Your task to perform on an android device: read, delete, or share a saved page in the chrome app Image 0: 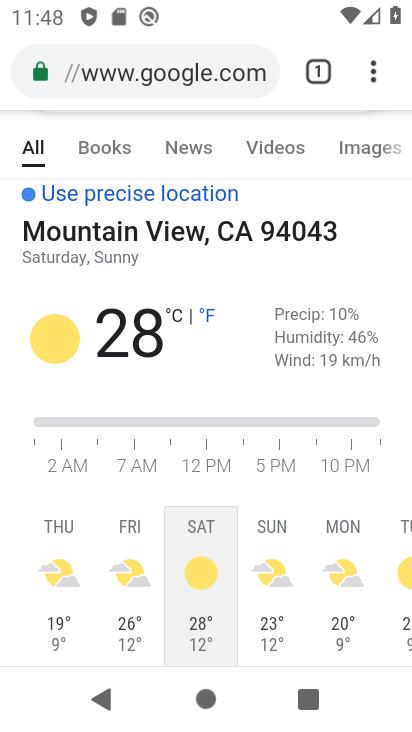
Step 0: press home button
Your task to perform on an android device: read, delete, or share a saved page in the chrome app Image 1: 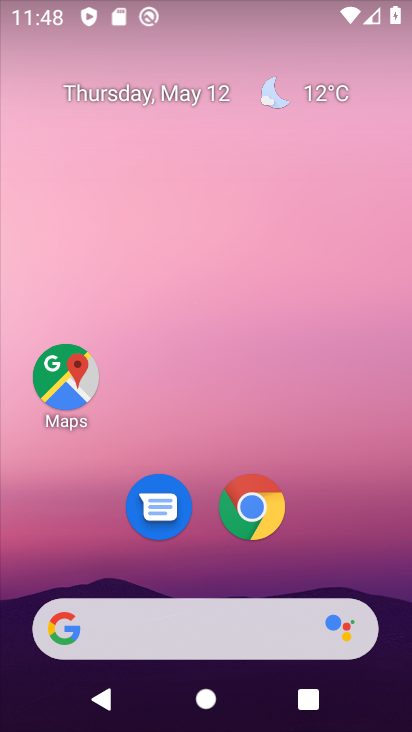
Step 1: click (245, 515)
Your task to perform on an android device: read, delete, or share a saved page in the chrome app Image 2: 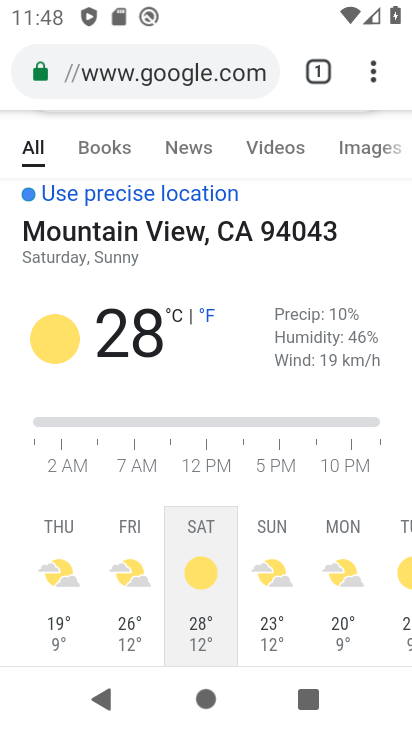
Step 2: task complete